Your task to perform on an android device: turn on the 12-hour format for clock Image 0: 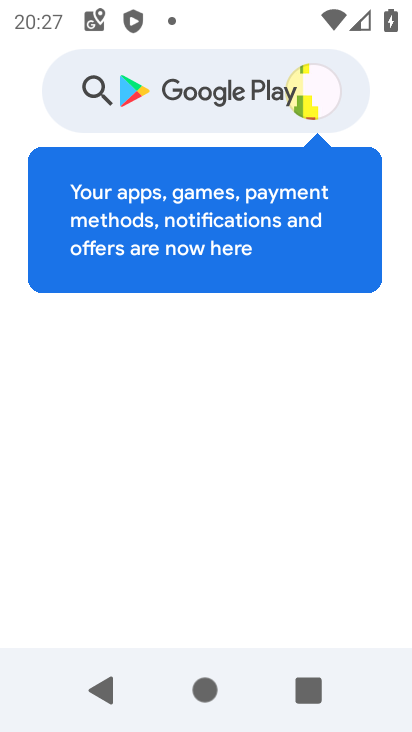
Step 0: press home button
Your task to perform on an android device: turn on the 12-hour format for clock Image 1: 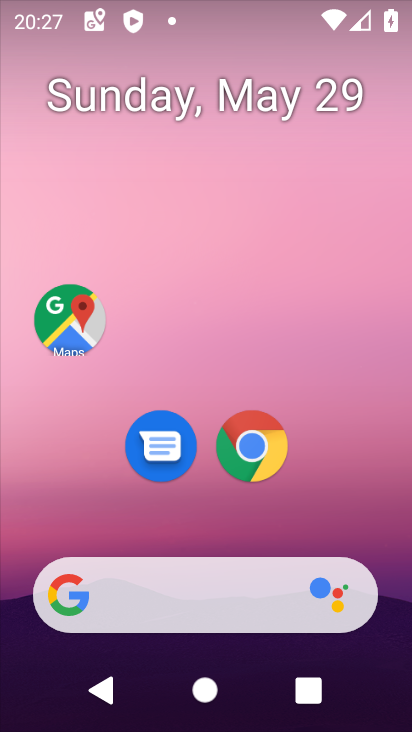
Step 1: drag from (180, 613) to (176, 97)
Your task to perform on an android device: turn on the 12-hour format for clock Image 2: 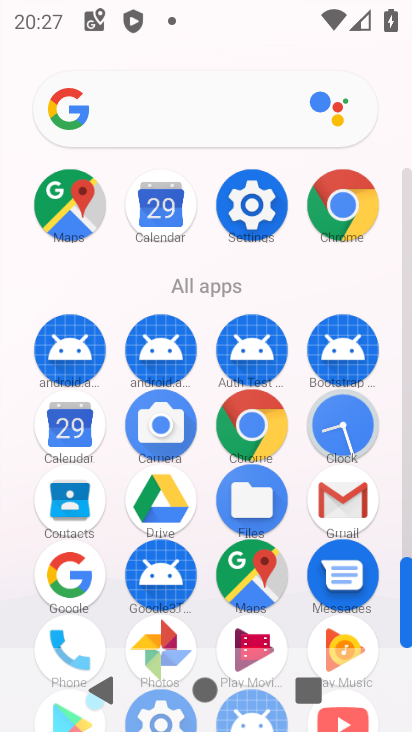
Step 2: click (237, 210)
Your task to perform on an android device: turn on the 12-hour format for clock Image 3: 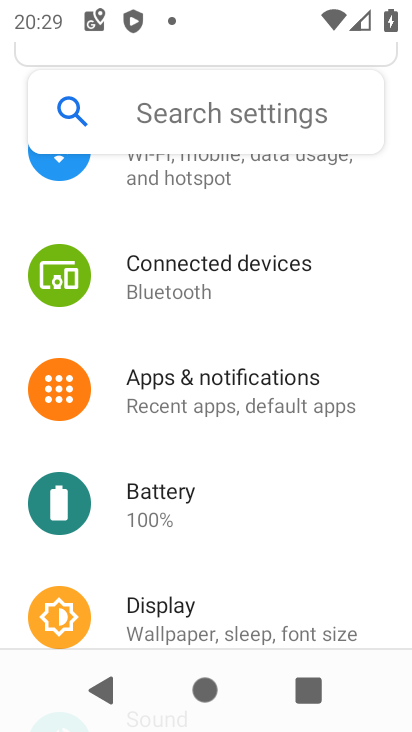
Step 3: drag from (160, 520) to (54, 14)
Your task to perform on an android device: turn on the 12-hour format for clock Image 4: 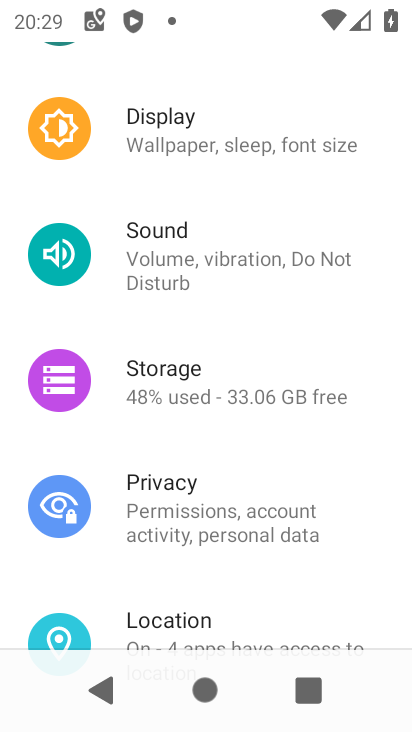
Step 4: drag from (254, 588) to (186, 36)
Your task to perform on an android device: turn on the 12-hour format for clock Image 5: 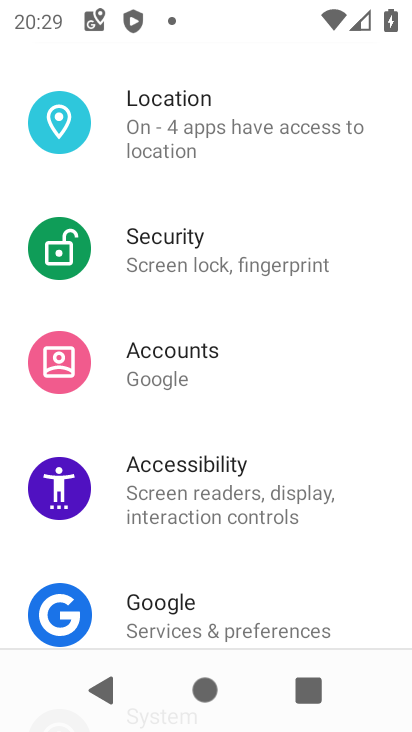
Step 5: drag from (241, 686) to (211, 173)
Your task to perform on an android device: turn on the 12-hour format for clock Image 6: 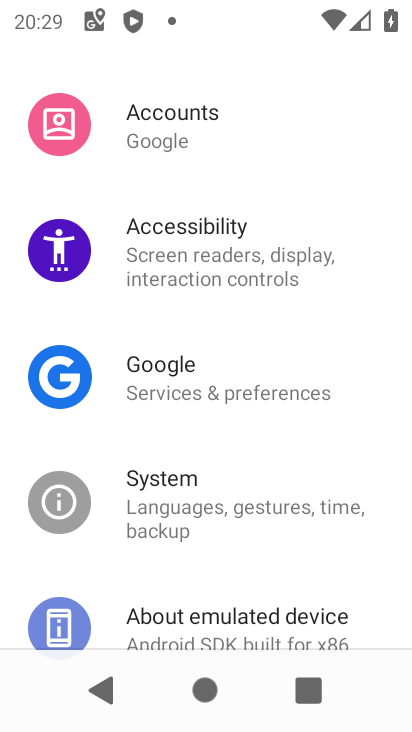
Step 6: click (171, 511)
Your task to perform on an android device: turn on the 12-hour format for clock Image 7: 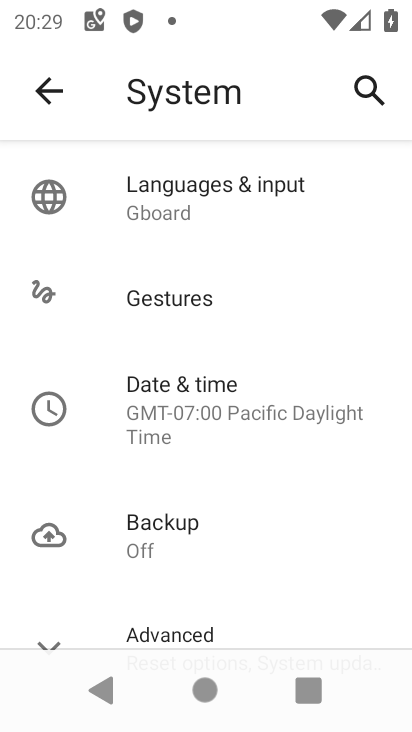
Step 7: click (169, 419)
Your task to perform on an android device: turn on the 12-hour format for clock Image 8: 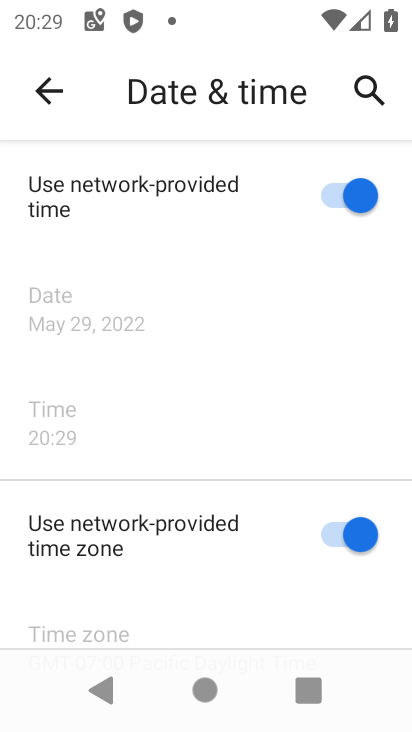
Step 8: drag from (223, 582) to (235, 25)
Your task to perform on an android device: turn on the 12-hour format for clock Image 9: 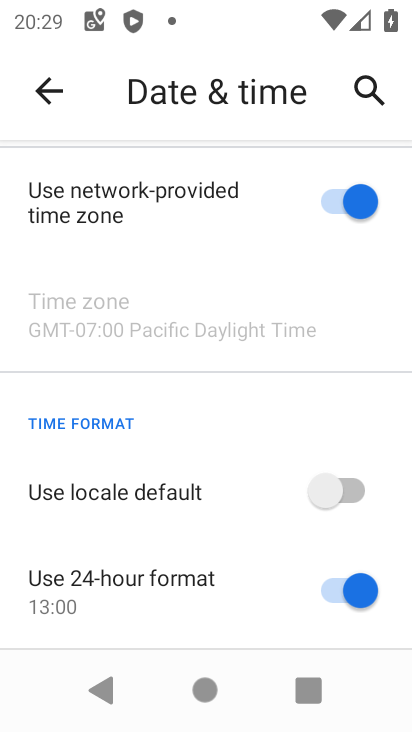
Step 9: click (353, 602)
Your task to perform on an android device: turn on the 12-hour format for clock Image 10: 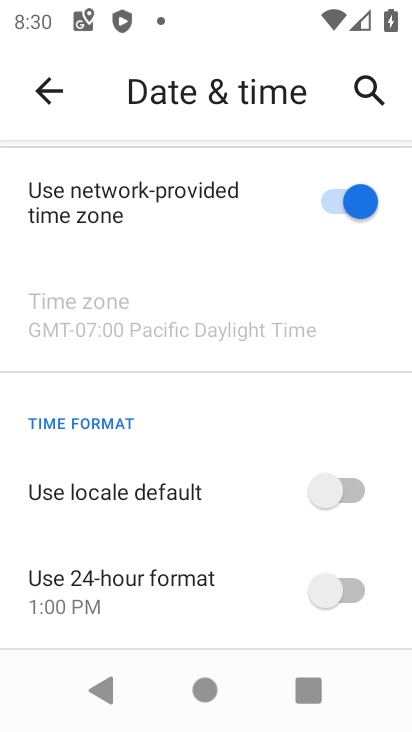
Step 10: click (334, 500)
Your task to perform on an android device: turn on the 12-hour format for clock Image 11: 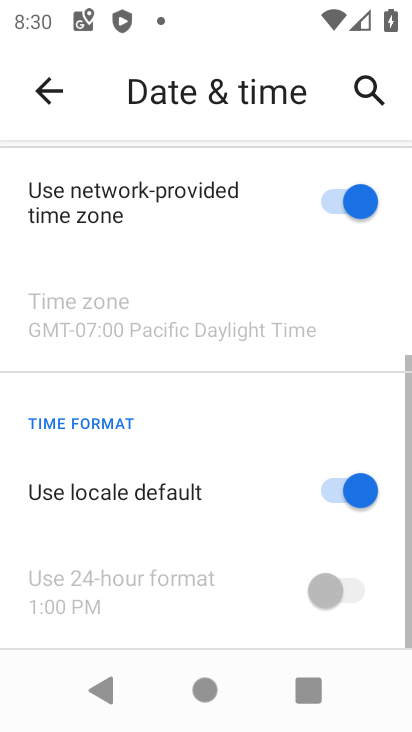
Step 11: task complete